Your task to perform on an android device: Play the last video I watched on Youtube Image 0: 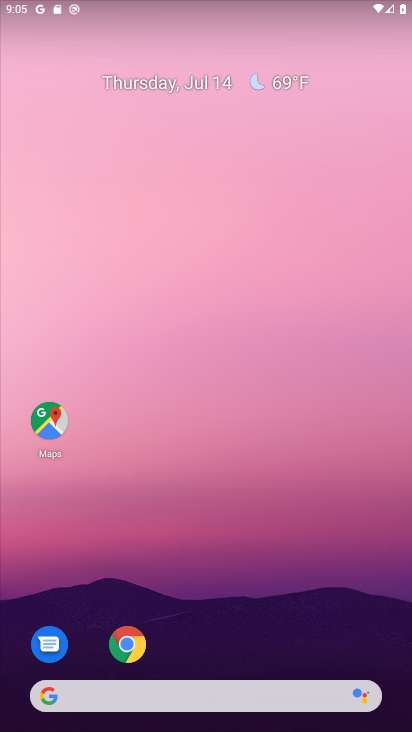
Step 0: drag from (188, 481) to (167, 208)
Your task to perform on an android device: Play the last video I watched on Youtube Image 1: 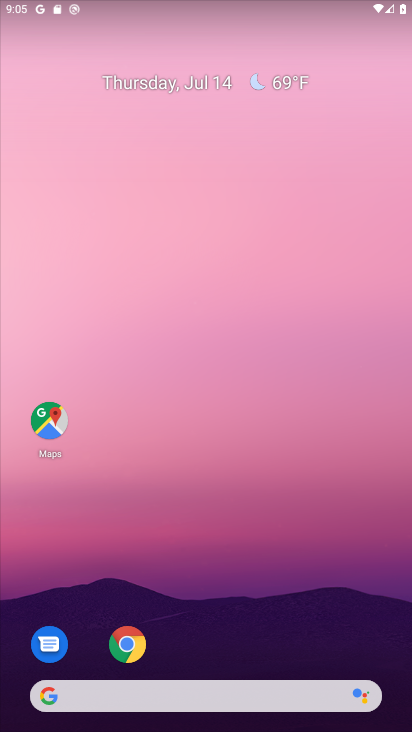
Step 1: drag from (202, 631) to (178, 98)
Your task to perform on an android device: Play the last video I watched on Youtube Image 2: 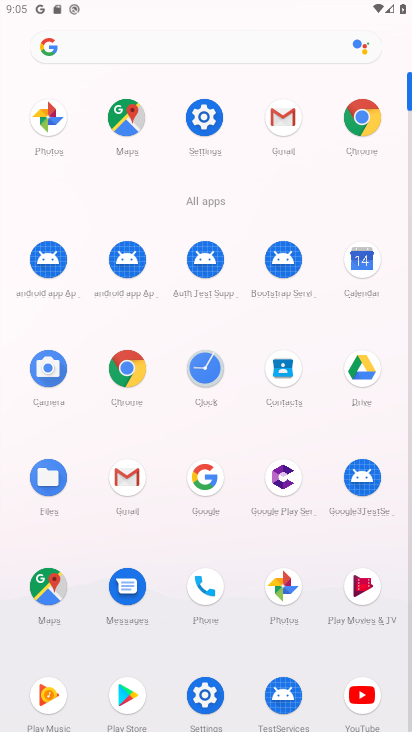
Step 2: click (363, 707)
Your task to perform on an android device: Play the last video I watched on Youtube Image 3: 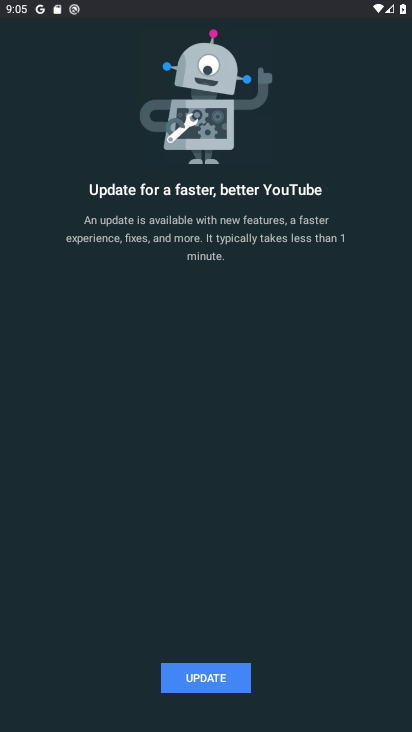
Step 3: click (199, 681)
Your task to perform on an android device: Play the last video I watched on Youtube Image 4: 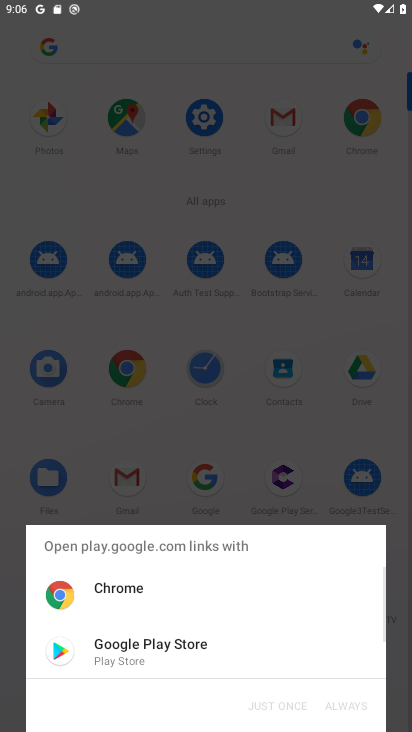
Step 4: click (164, 658)
Your task to perform on an android device: Play the last video I watched on Youtube Image 5: 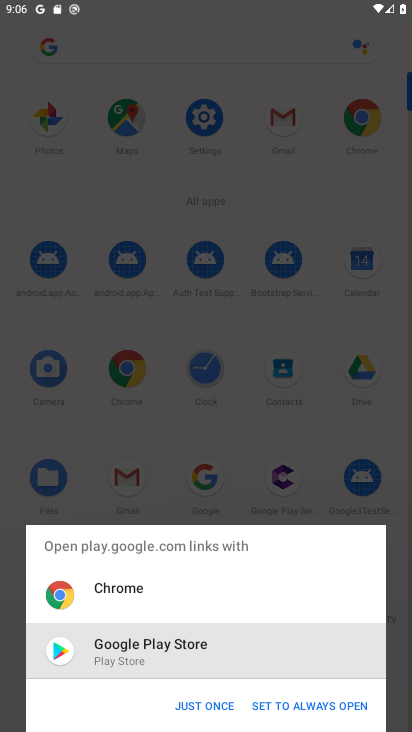
Step 5: click (210, 715)
Your task to perform on an android device: Play the last video I watched on Youtube Image 6: 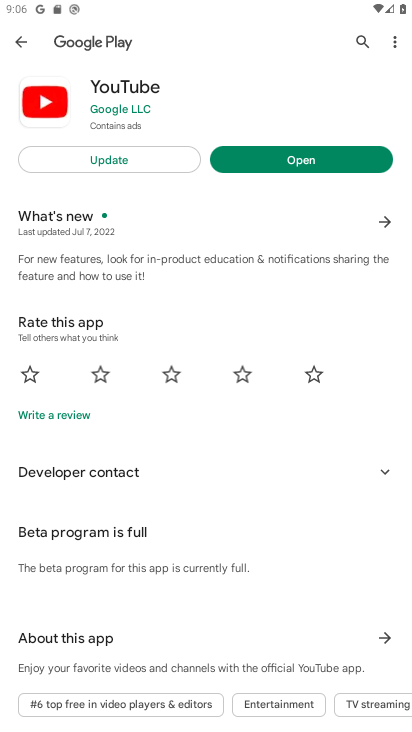
Step 6: click (327, 153)
Your task to perform on an android device: Play the last video I watched on Youtube Image 7: 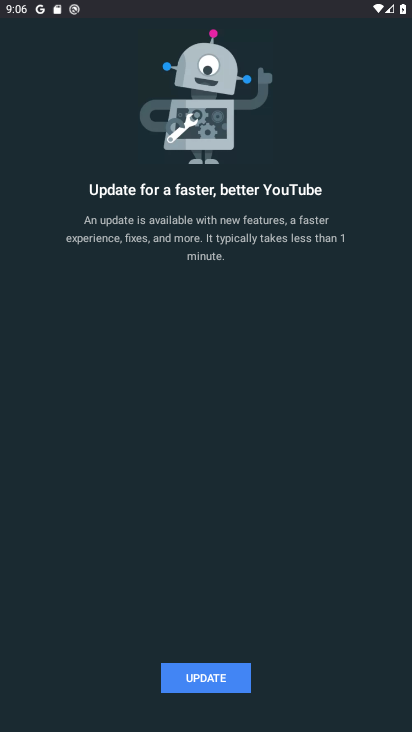
Step 7: click (236, 675)
Your task to perform on an android device: Play the last video I watched on Youtube Image 8: 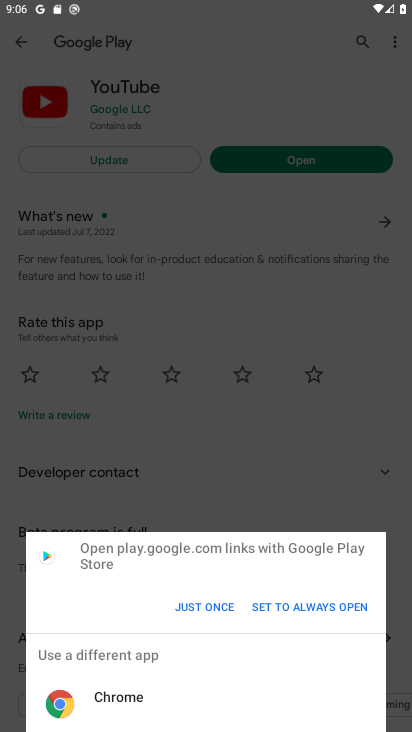
Step 8: click (213, 624)
Your task to perform on an android device: Play the last video I watched on Youtube Image 9: 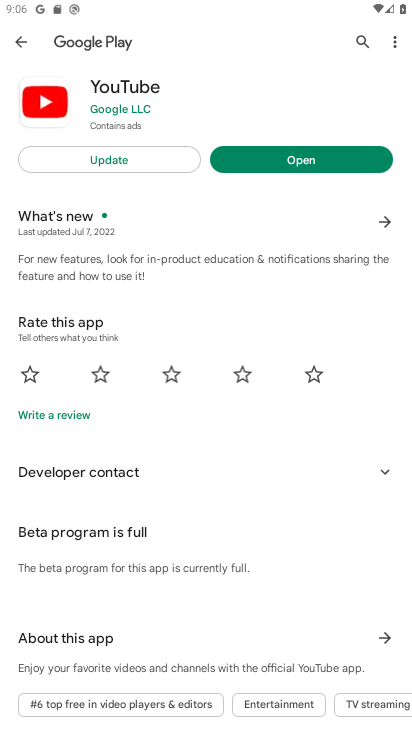
Step 9: click (110, 160)
Your task to perform on an android device: Play the last video I watched on Youtube Image 10: 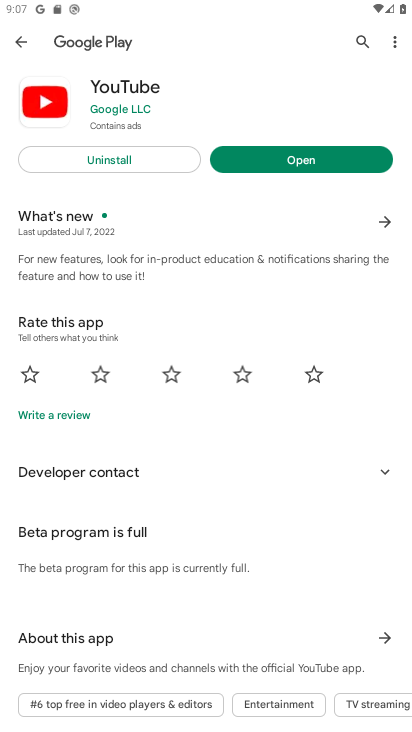
Step 10: click (308, 138)
Your task to perform on an android device: Play the last video I watched on Youtube Image 11: 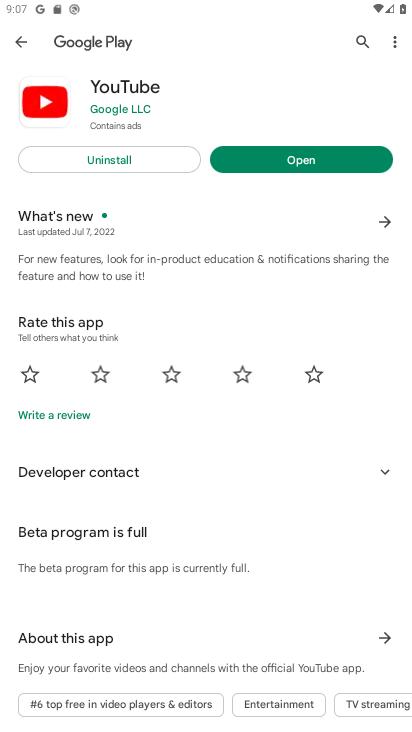
Step 11: click (323, 155)
Your task to perform on an android device: Play the last video I watched on Youtube Image 12: 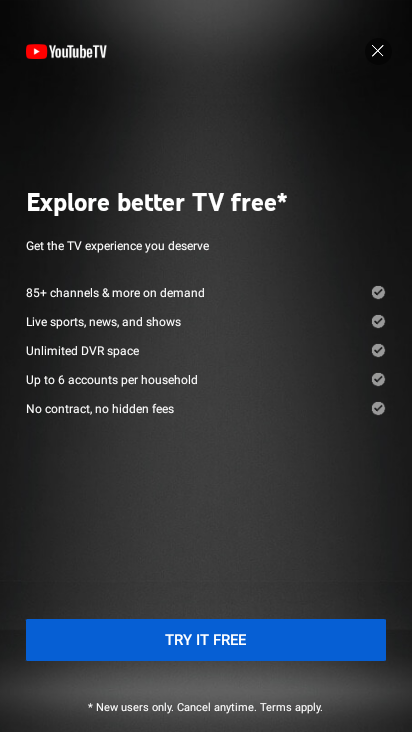
Step 12: click (137, 648)
Your task to perform on an android device: Play the last video I watched on Youtube Image 13: 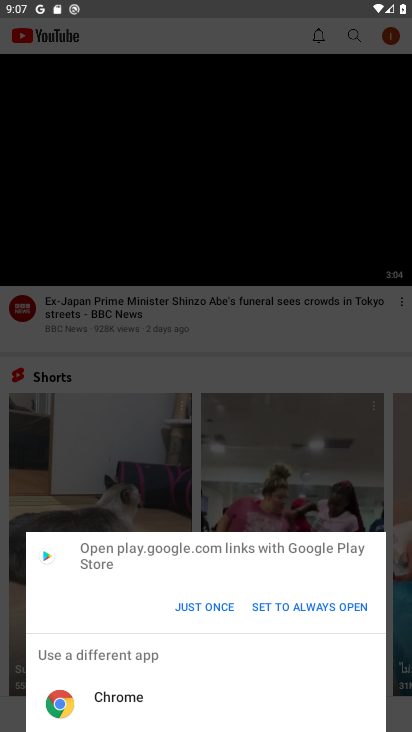
Step 13: click (206, 598)
Your task to perform on an android device: Play the last video I watched on Youtube Image 14: 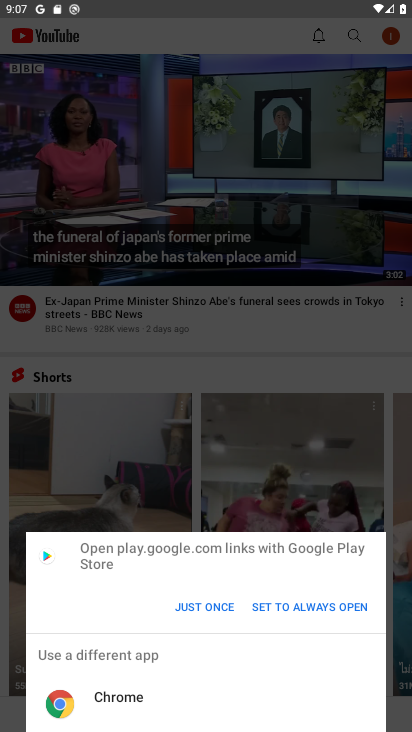
Step 14: click (98, 697)
Your task to perform on an android device: Play the last video I watched on Youtube Image 15: 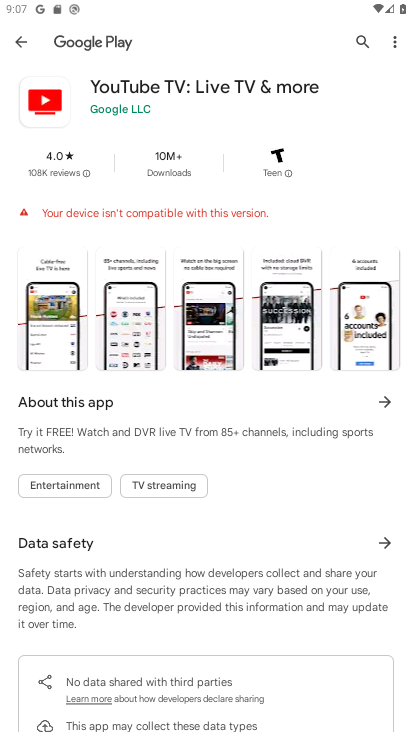
Step 15: press back button
Your task to perform on an android device: Play the last video I watched on Youtube Image 16: 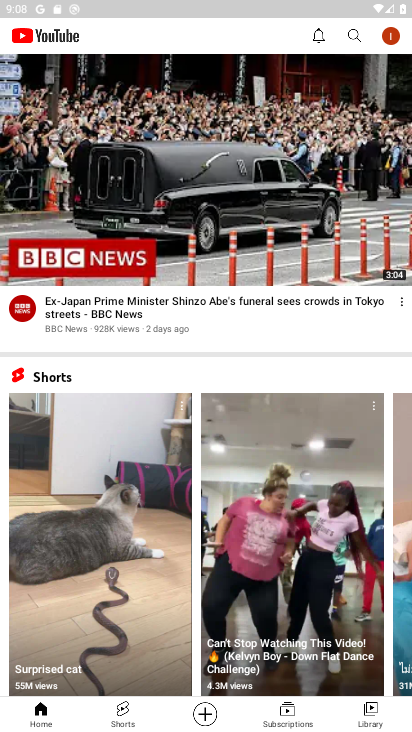
Step 16: click (359, 709)
Your task to perform on an android device: Play the last video I watched on Youtube Image 17: 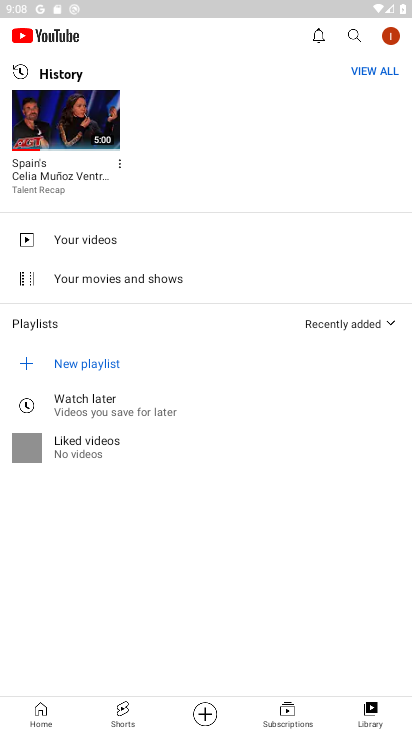
Step 17: click (24, 118)
Your task to perform on an android device: Play the last video I watched on Youtube Image 18: 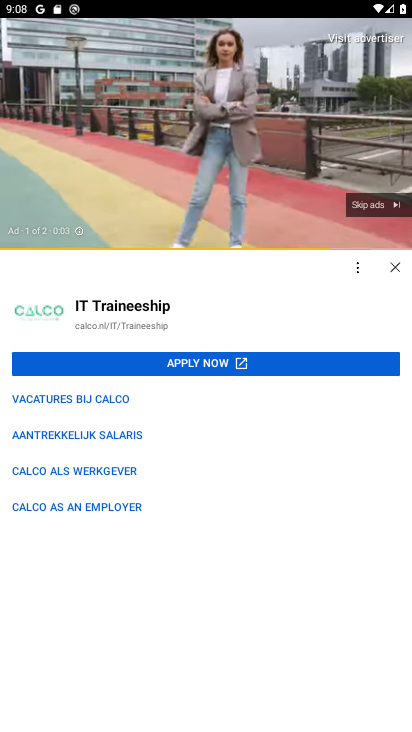
Step 18: click (378, 197)
Your task to perform on an android device: Play the last video I watched on Youtube Image 19: 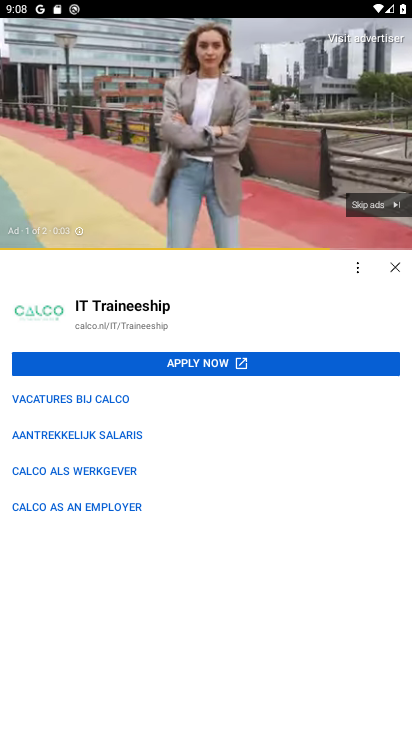
Step 19: click (382, 203)
Your task to perform on an android device: Play the last video I watched on Youtube Image 20: 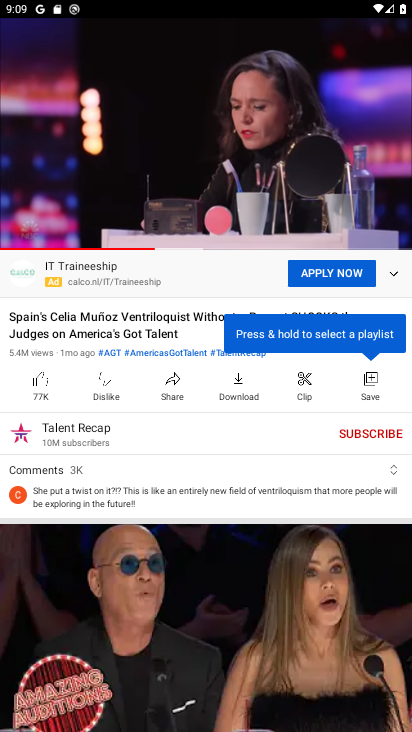
Step 20: task complete